Your task to perform on an android device: What's the weather? Image 0: 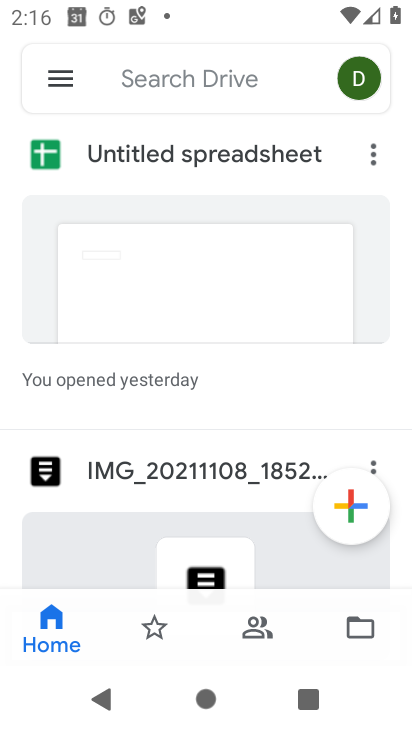
Step 0: press home button
Your task to perform on an android device: What's the weather? Image 1: 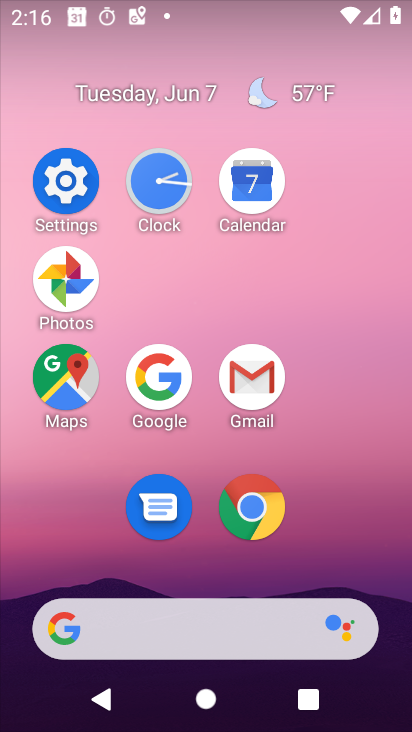
Step 1: click (169, 400)
Your task to perform on an android device: What's the weather? Image 2: 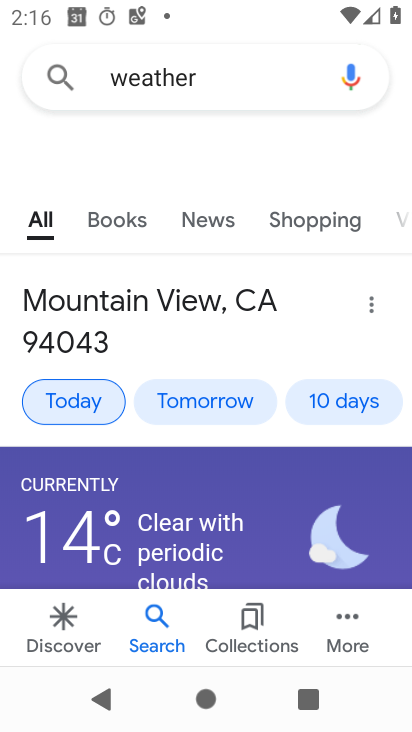
Step 2: task complete